Your task to perform on an android device: Search for "sony triple a" on costco.com, select the first entry, add it to the cart, then select checkout. Image 0: 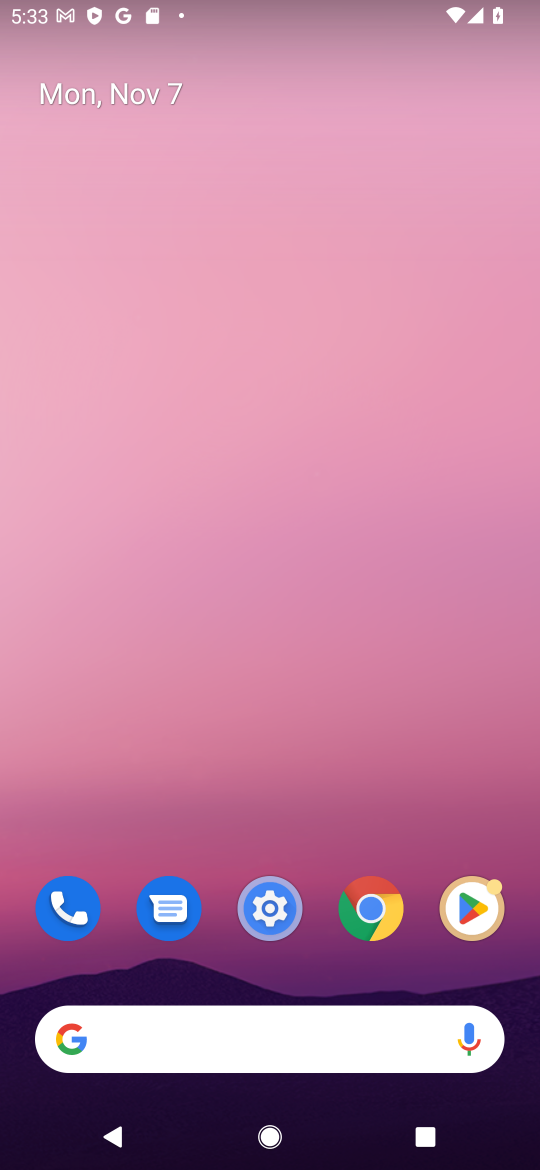
Step 0: click (242, 1025)
Your task to perform on an android device: Search for "sony triple a" on costco.com, select the first entry, add it to the cart, then select checkout. Image 1: 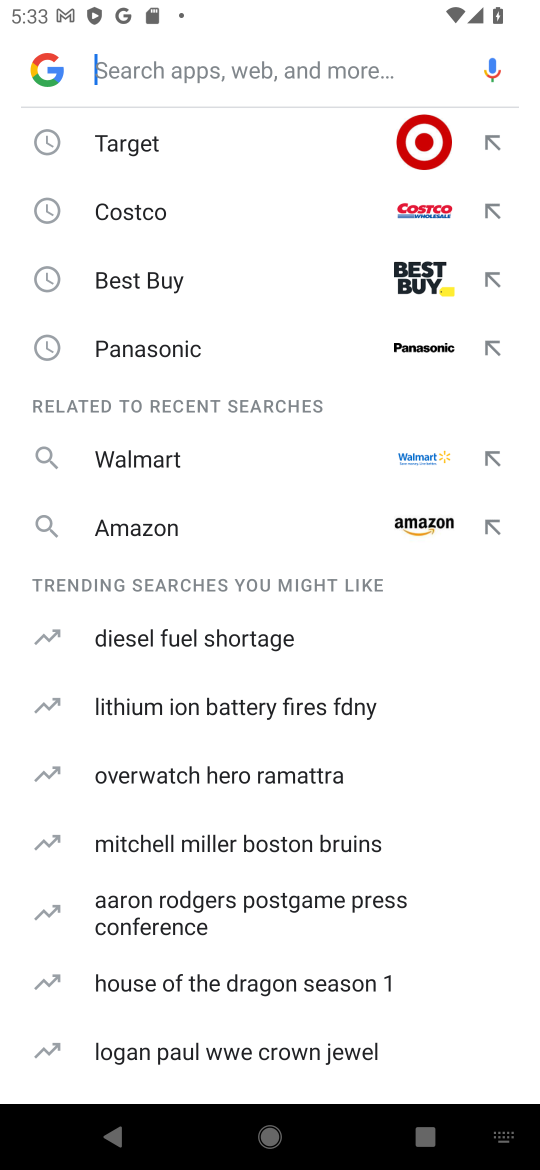
Step 1: type "sony triple"
Your task to perform on an android device: Search for "sony triple a" on costco.com, select the first entry, add it to the cart, then select checkout. Image 2: 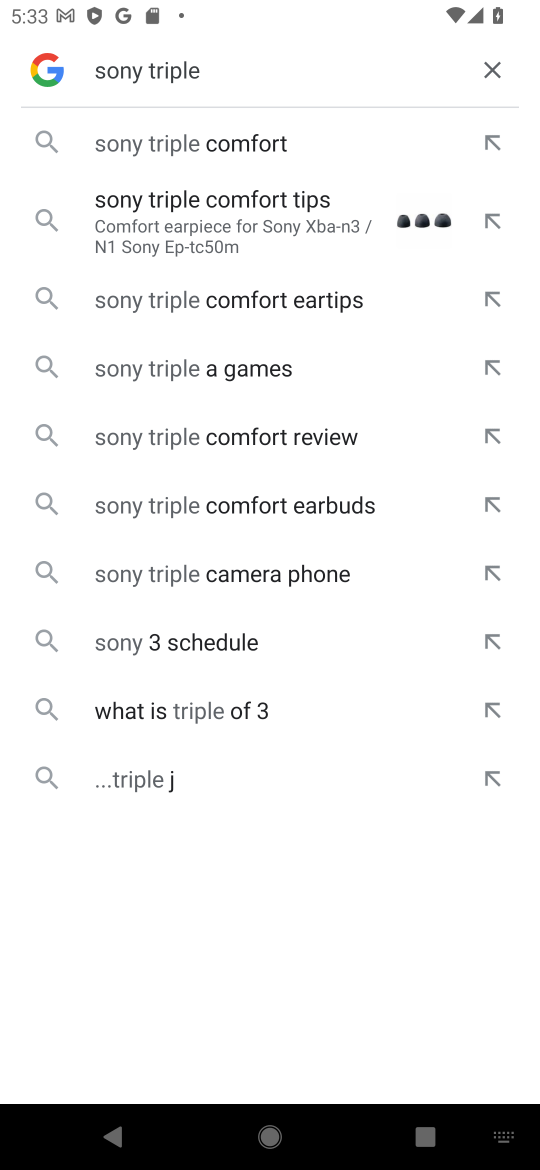
Step 2: click (231, 122)
Your task to perform on an android device: Search for "sony triple a" on costco.com, select the first entry, add it to the cart, then select checkout. Image 3: 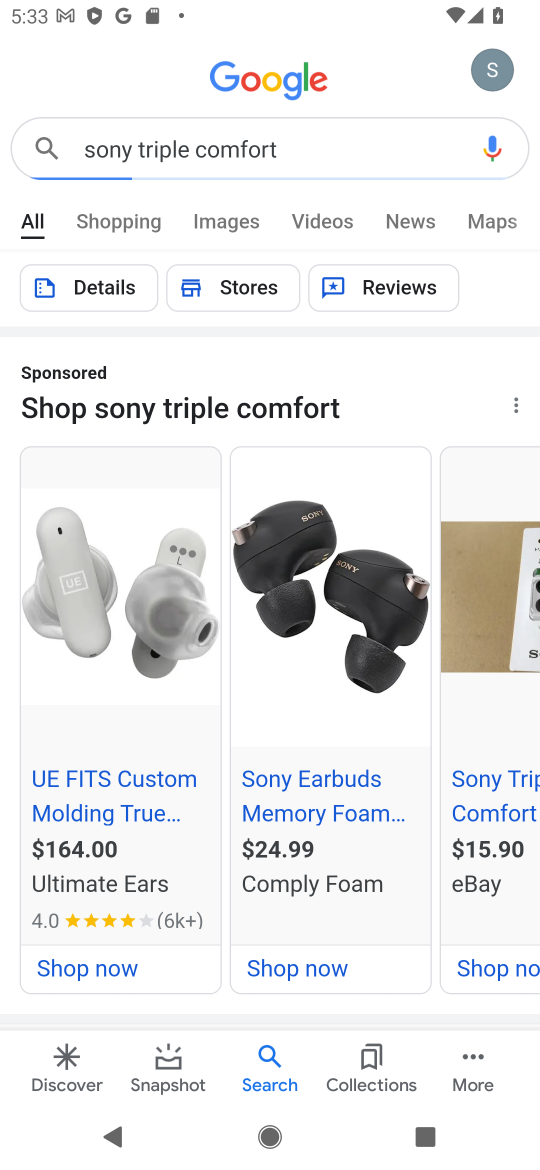
Step 3: task complete